Your task to perform on an android device: Open Yahoo.com Image 0: 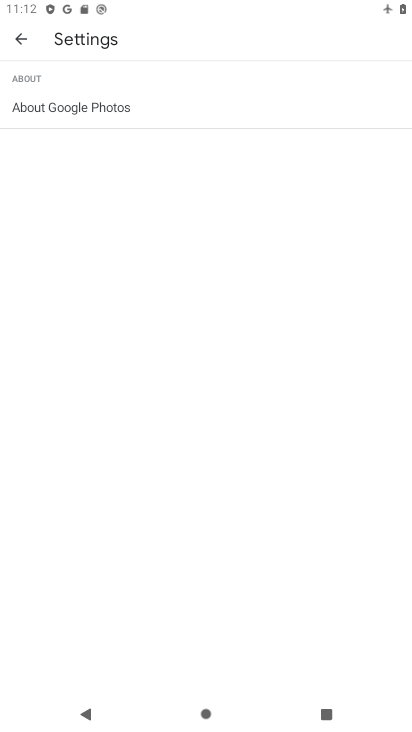
Step 0: press home button
Your task to perform on an android device: Open Yahoo.com Image 1: 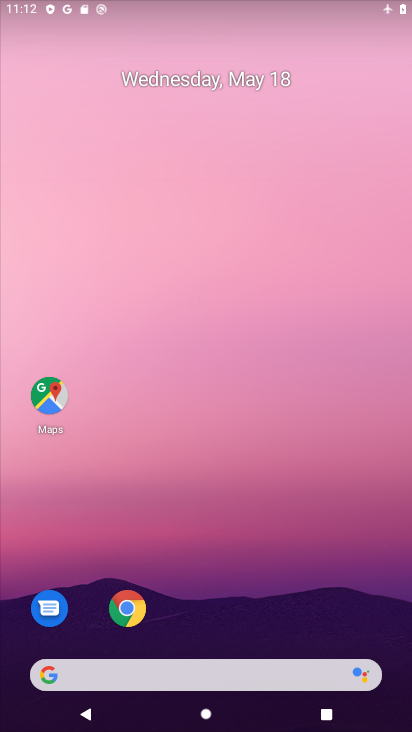
Step 1: click (137, 614)
Your task to perform on an android device: Open Yahoo.com Image 2: 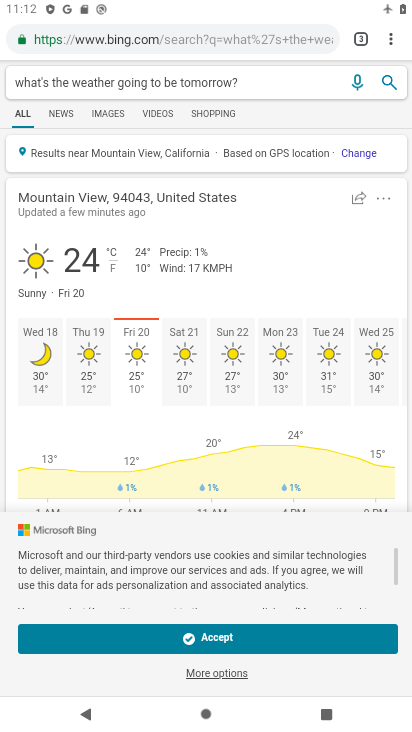
Step 2: click (364, 43)
Your task to perform on an android device: Open Yahoo.com Image 3: 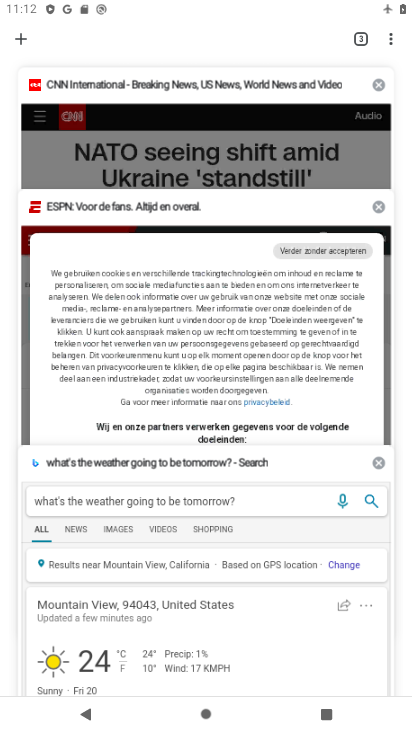
Step 3: click (16, 34)
Your task to perform on an android device: Open Yahoo.com Image 4: 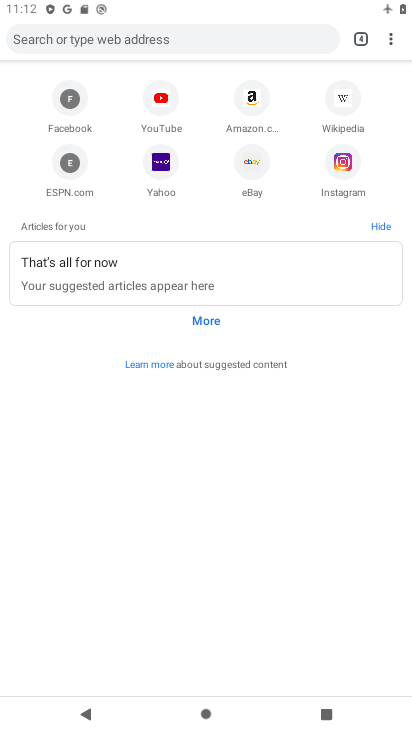
Step 4: click (163, 163)
Your task to perform on an android device: Open Yahoo.com Image 5: 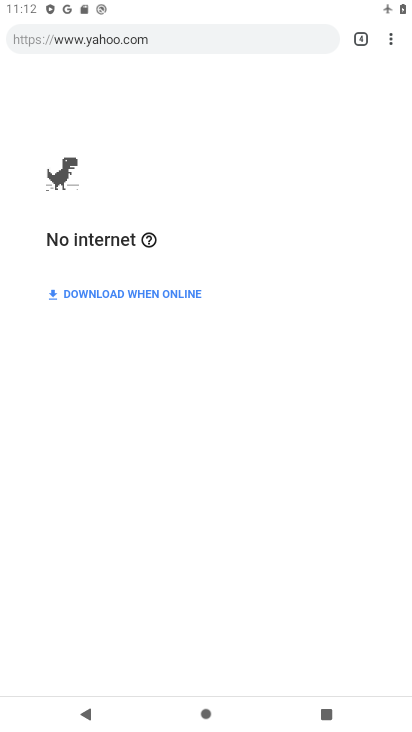
Step 5: task complete